Your task to perform on an android device: Open Google Maps and go to "Timeline" Image 0: 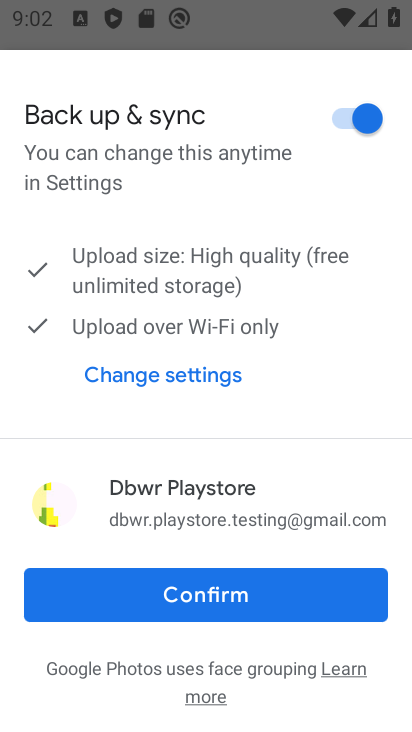
Step 0: click (252, 597)
Your task to perform on an android device: Open Google Maps and go to "Timeline" Image 1: 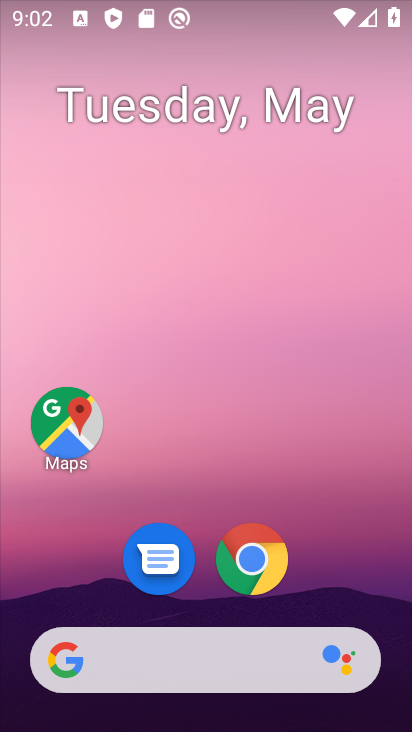
Step 1: click (72, 437)
Your task to perform on an android device: Open Google Maps and go to "Timeline" Image 2: 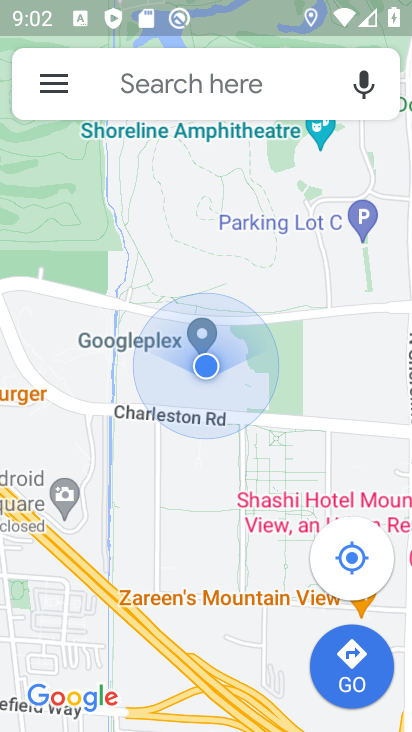
Step 2: click (46, 96)
Your task to perform on an android device: Open Google Maps and go to "Timeline" Image 3: 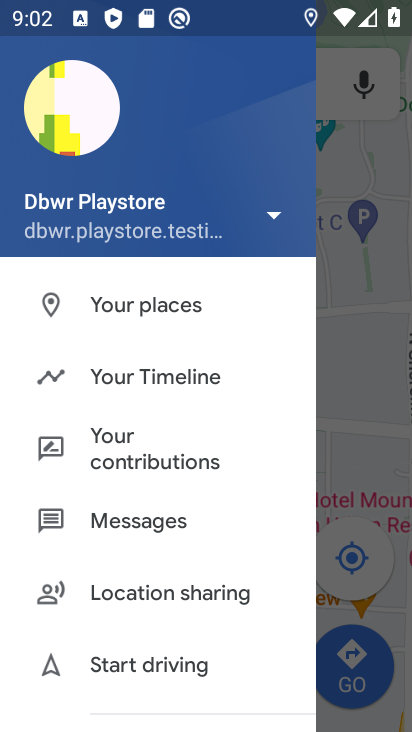
Step 3: click (166, 381)
Your task to perform on an android device: Open Google Maps and go to "Timeline" Image 4: 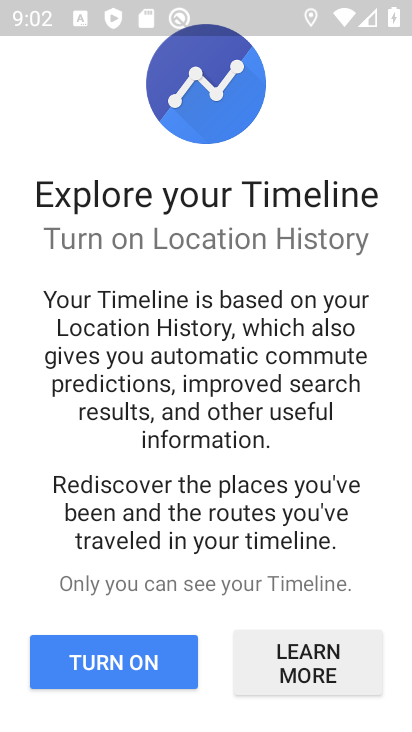
Step 4: click (149, 645)
Your task to perform on an android device: Open Google Maps and go to "Timeline" Image 5: 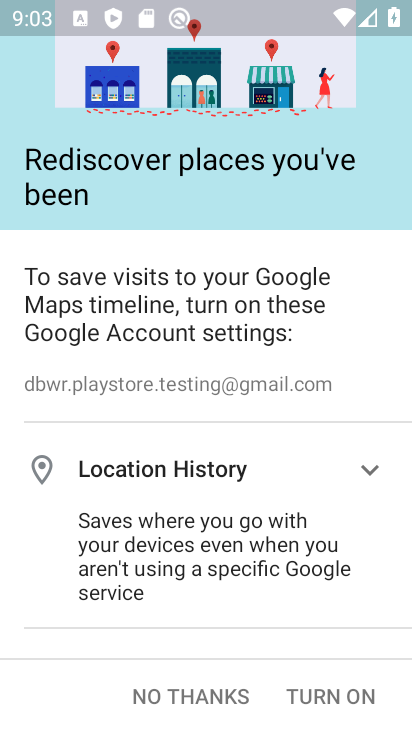
Step 5: click (310, 698)
Your task to perform on an android device: Open Google Maps and go to "Timeline" Image 6: 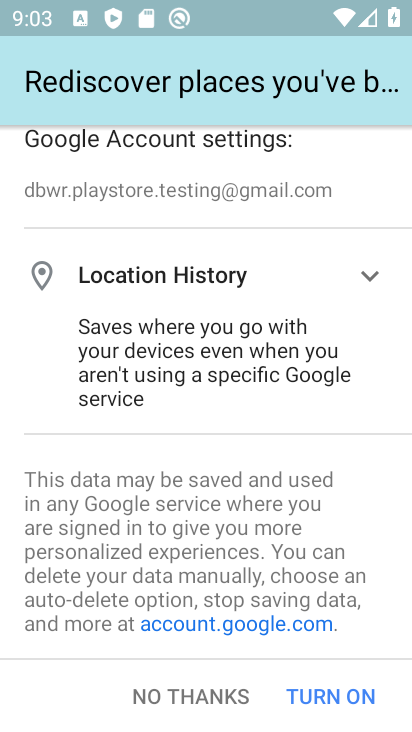
Step 6: click (310, 698)
Your task to perform on an android device: Open Google Maps and go to "Timeline" Image 7: 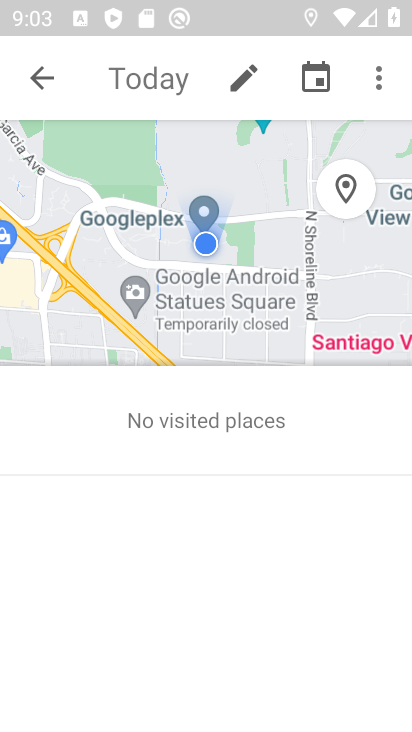
Step 7: task complete